Your task to perform on an android device: Search for seafood restaurants on Google Maps Image 0: 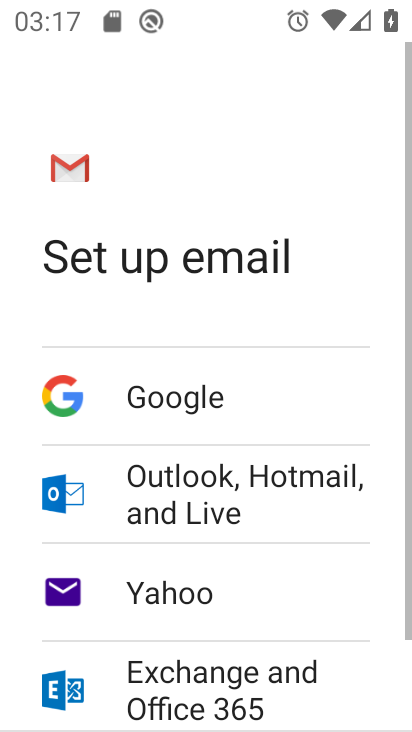
Step 0: press home button
Your task to perform on an android device: Search for seafood restaurants on Google Maps Image 1: 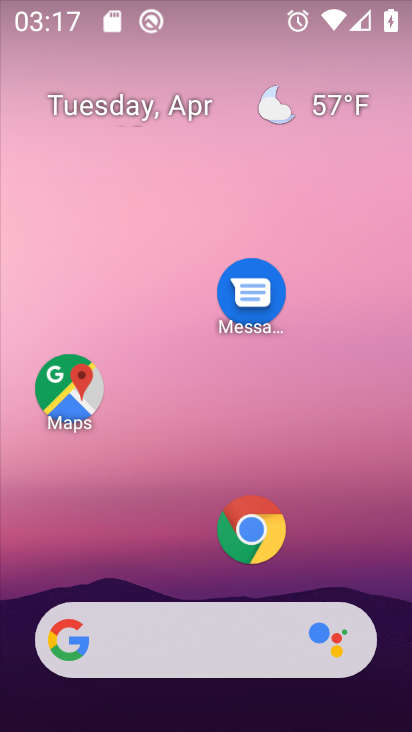
Step 1: click (72, 385)
Your task to perform on an android device: Search for seafood restaurants on Google Maps Image 2: 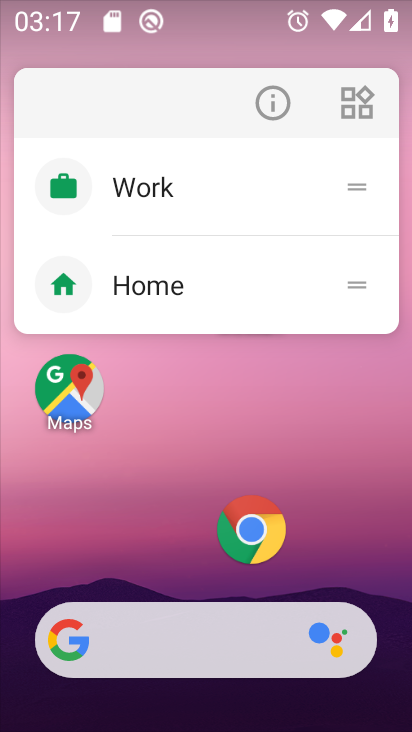
Step 2: click (69, 389)
Your task to perform on an android device: Search for seafood restaurants on Google Maps Image 3: 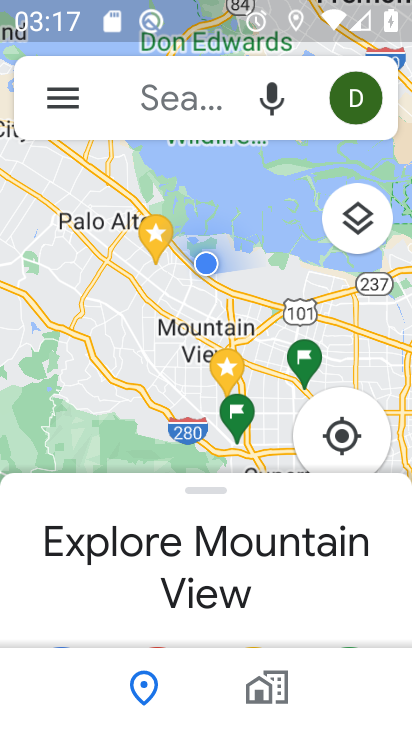
Step 3: click (152, 89)
Your task to perform on an android device: Search for seafood restaurants on Google Maps Image 4: 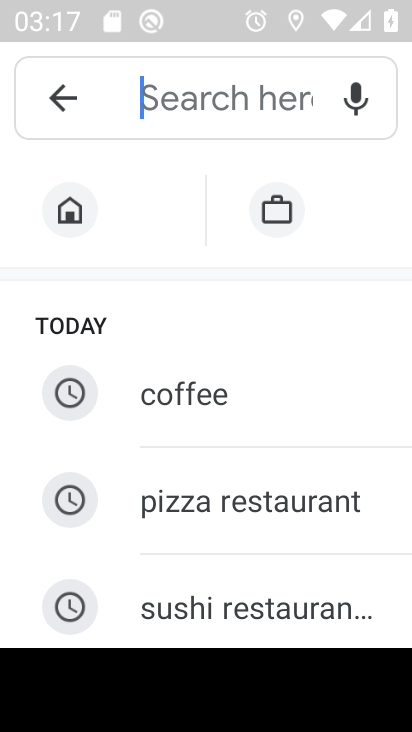
Step 4: drag from (242, 533) to (292, 174)
Your task to perform on an android device: Search for seafood restaurants on Google Maps Image 5: 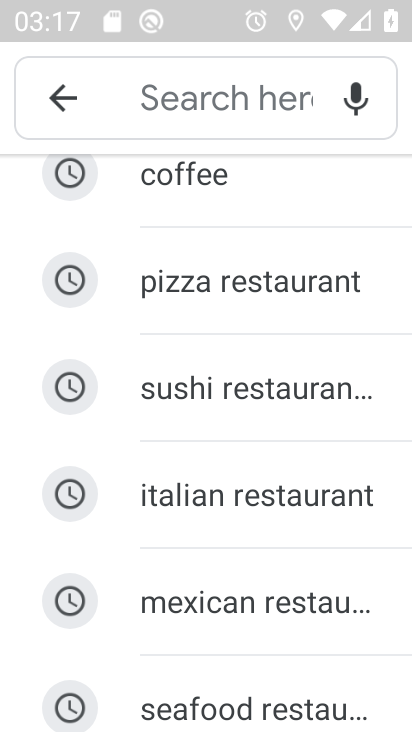
Step 5: click (197, 700)
Your task to perform on an android device: Search for seafood restaurants on Google Maps Image 6: 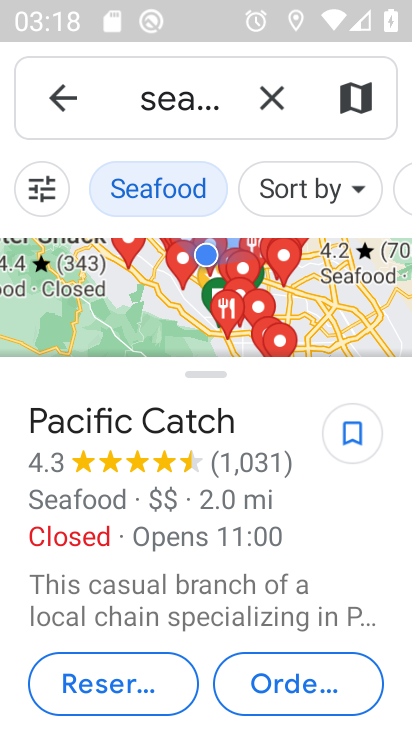
Step 6: task complete